Your task to perform on an android device: Do I have any events tomorrow? Image 0: 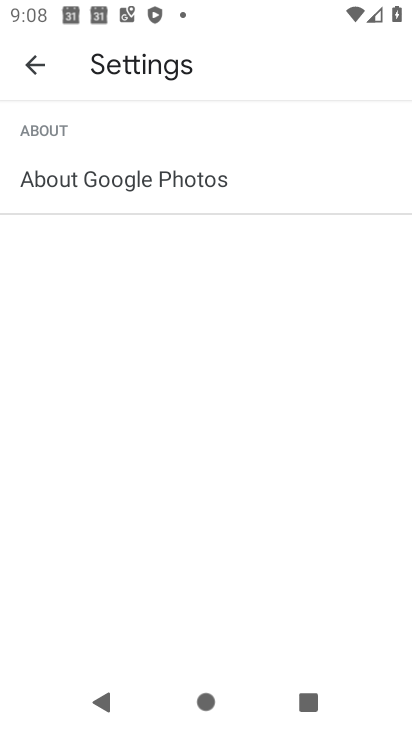
Step 0: press home button
Your task to perform on an android device: Do I have any events tomorrow? Image 1: 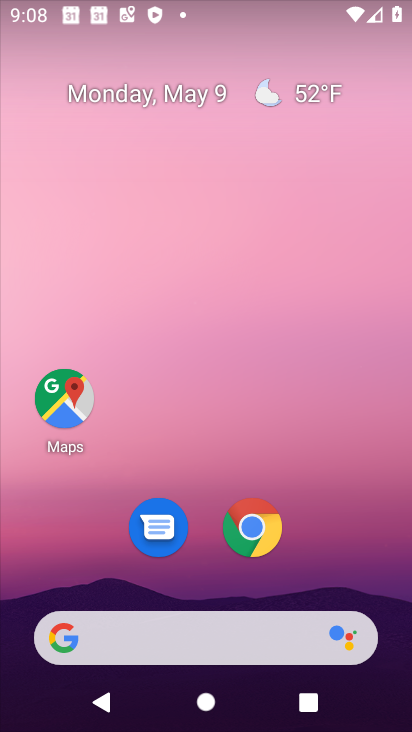
Step 1: drag from (212, 590) to (217, 61)
Your task to perform on an android device: Do I have any events tomorrow? Image 2: 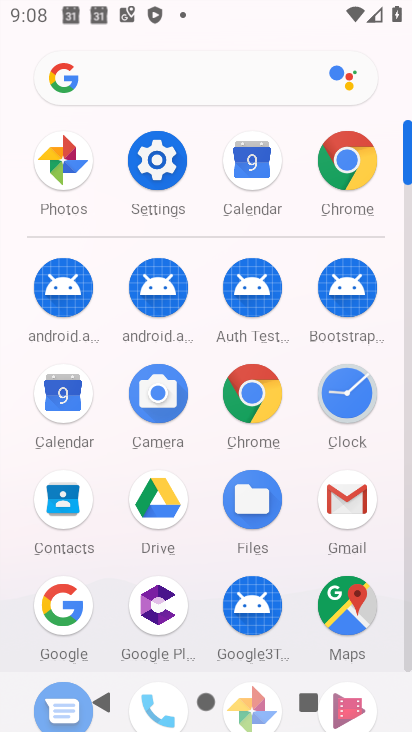
Step 2: click (69, 401)
Your task to perform on an android device: Do I have any events tomorrow? Image 3: 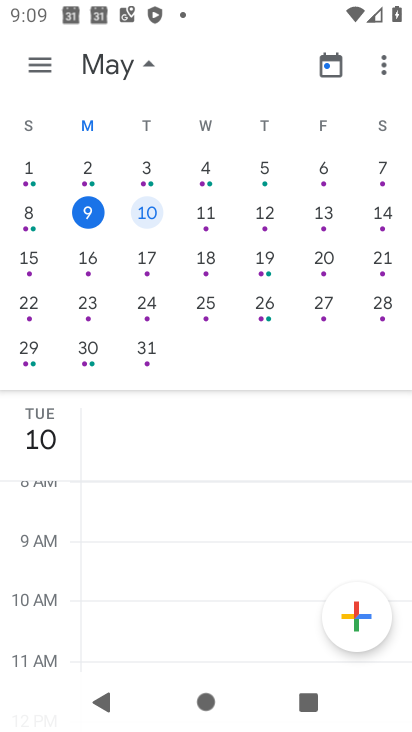
Step 3: click (151, 214)
Your task to perform on an android device: Do I have any events tomorrow? Image 4: 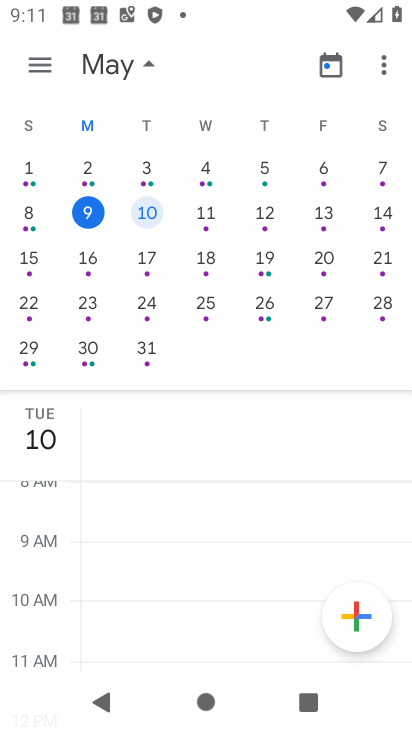
Step 4: task complete